Your task to perform on an android device: turn pop-ups on in chrome Image 0: 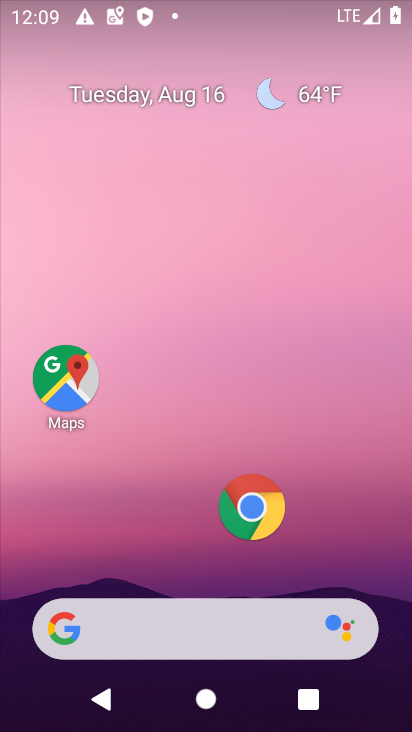
Step 0: click (249, 508)
Your task to perform on an android device: turn pop-ups on in chrome Image 1: 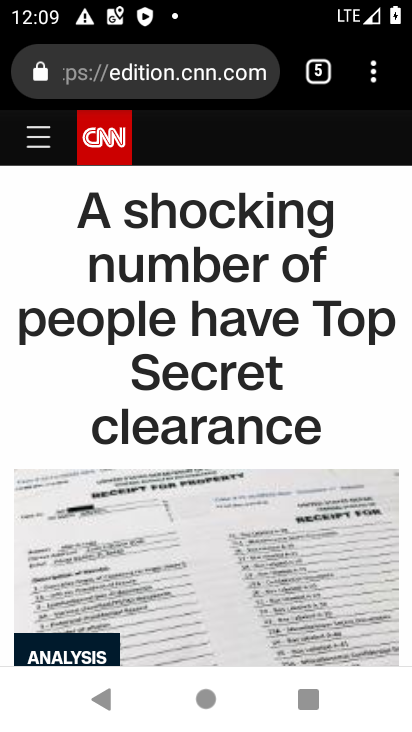
Step 1: click (373, 67)
Your task to perform on an android device: turn pop-ups on in chrome Image 2: 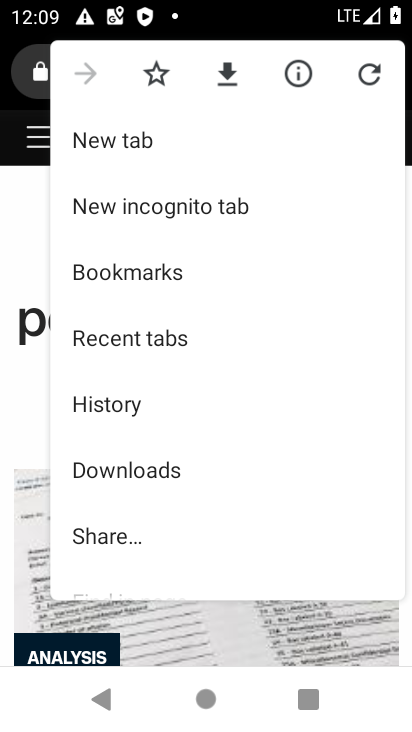
Step 2: drag from (237, 512) to (230, 333)
Your task to perform on an android device: turn pop-ups on in chrome Image 3: 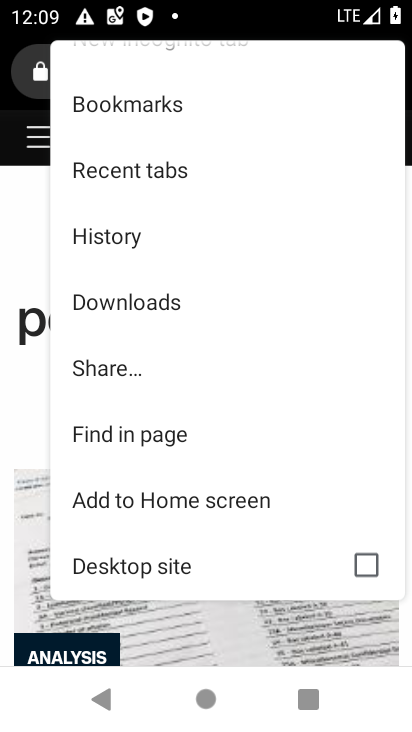
Step 3: drag from (241, 442) to (238, 150)
Your task to perform on an android device: turn pop-ups on in chrome Image 4: 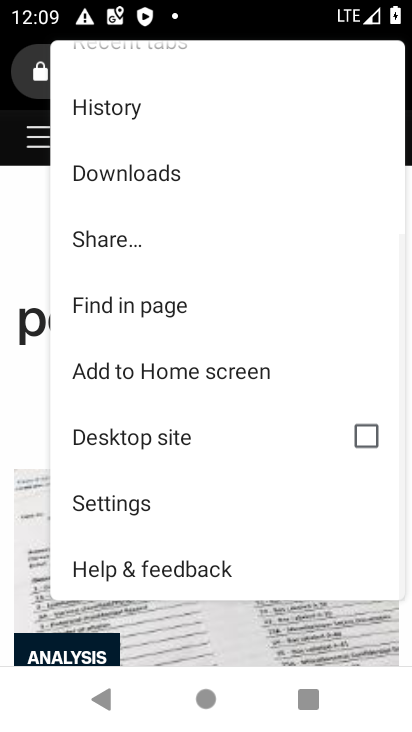
Step 4: click (124, 506)
Your task to perform on an android device: turn pop-ups on in chrome Image 5: 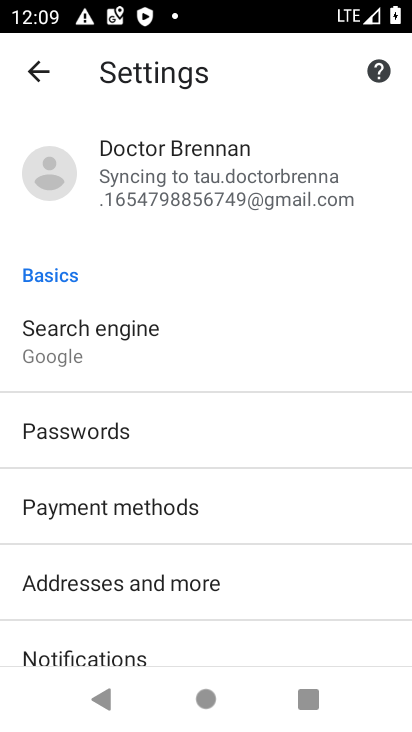
Step 5: drag from (232, 599) to (226, 362)
Your task to perform on an android device: turn pop-ups on in chrome Image 6: 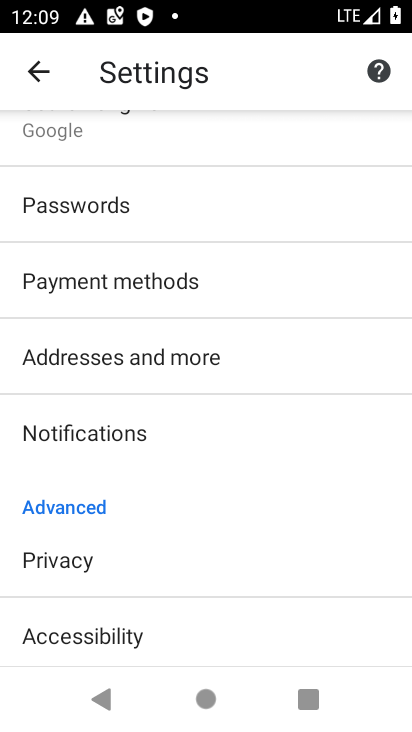
Step 6: drag from (175, 535) to (154, 307)
Your task to perform on an android device: turn pop-ups on in chrome Image 7: 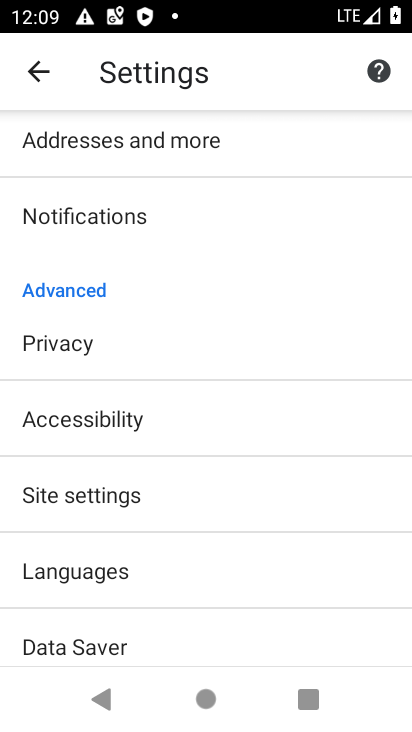
Step 7: click (75, 493)
Your task to perform on an android device: turn pop-ups on in chrome Image 8: 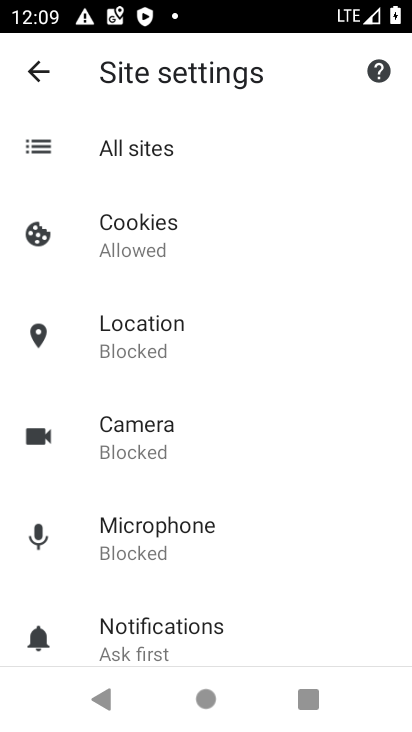
Step 8: drag from (250, 567) to (250, 342)
Your task to perform on an android device: turn pop-ups on in chrome Image 9: 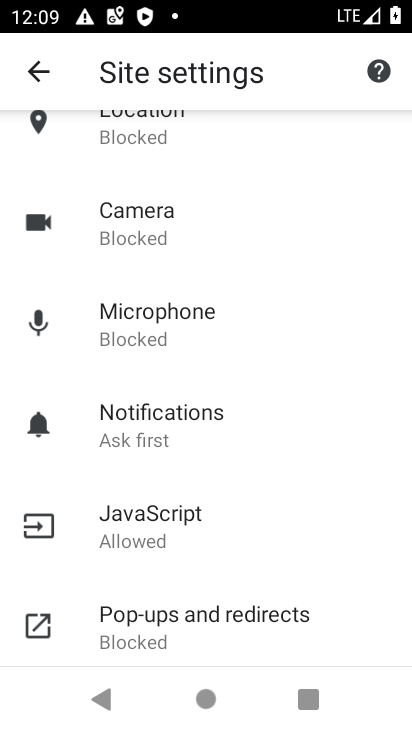
Step 9: click (176, 621)
Your task to perform on an android device: turn pop-ups on in chrome Image 10: 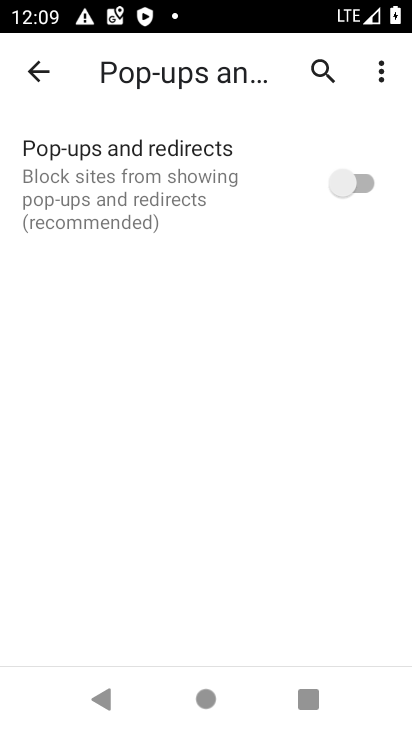
Step 10: click (358, 182)
Your task to perform on an android device: turn pop-ups on in chrome Image 11: 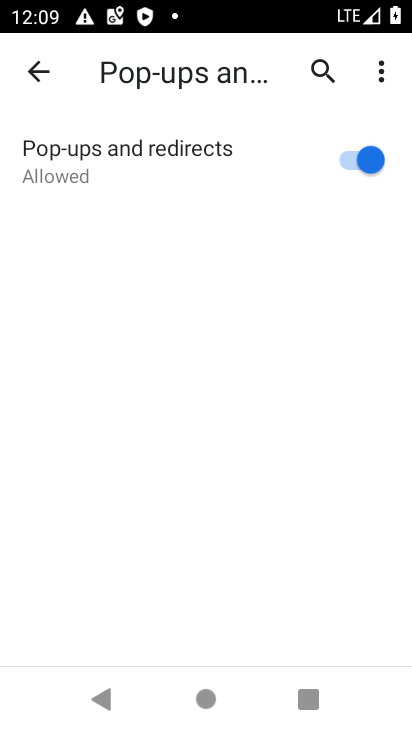
Step 11: task complete